Your task to perform on an android device: open app "Fetch Rewards" Image 0: 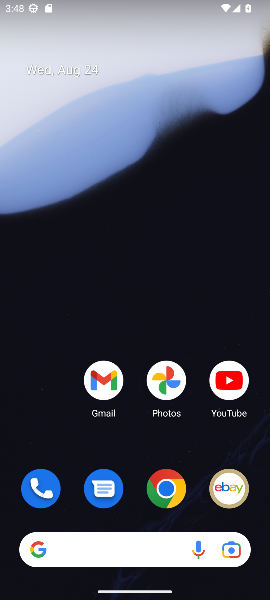
Step 0: drag from (143, 514) to (207, 53)
Your task to perform on an android device: open app "Fetch Rewards" Image 1: 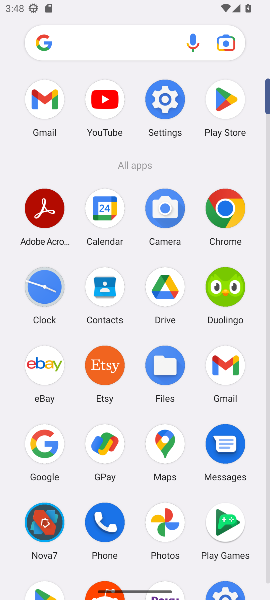
Step 1: click (235, 110)
Your task to perform on an android device: open app "Fetch Rewards" Image 2: 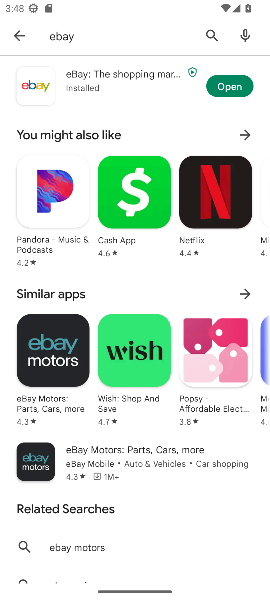
Step 2: click (210, 41)
Your task to perform on an android device: open app "Fetch Rewards" Image 3: 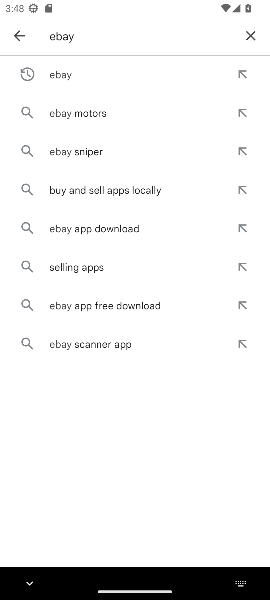
Step 3: click (244, 40)
Your task to perform on an android device: open app "Fetch Rewards" Image 4: 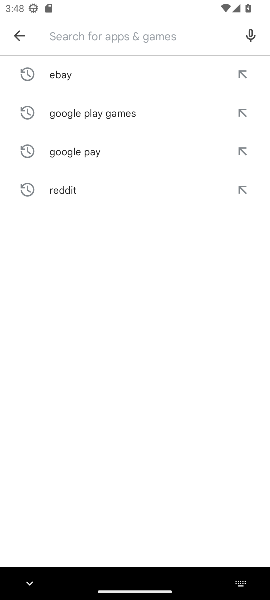
Step 4: type "fetch reward"
Your task to perform on an android device: open app "Fetch Rewards" Image 5: 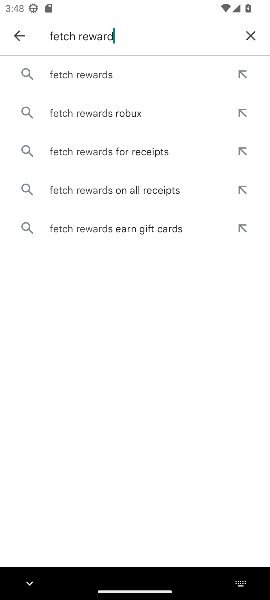
Step 5: click (75, 80)
Your task to perform on an android device: open app "Fetch Rewards" Image 6: 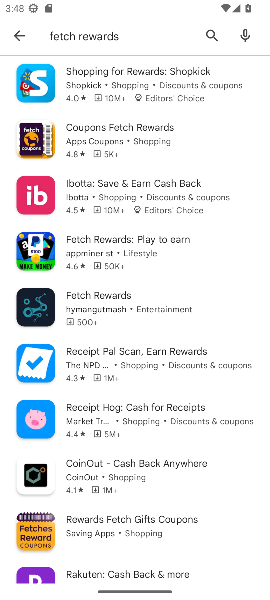
Step 6: task complete